Your task to perform on an android device: uninstall "Cash App" Image 0: 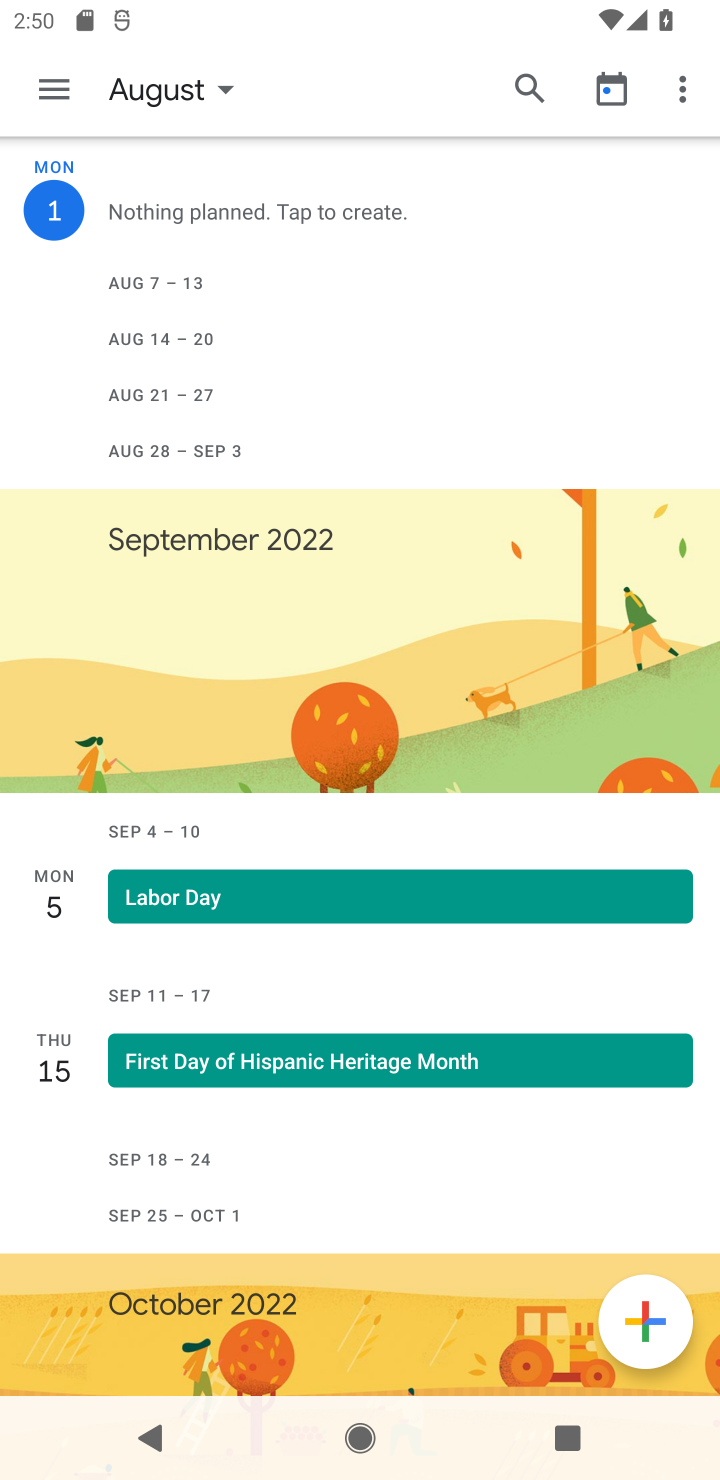
Step 0: press home button
Your task to perform on an android device: uninstall "Cash App" Image 1: 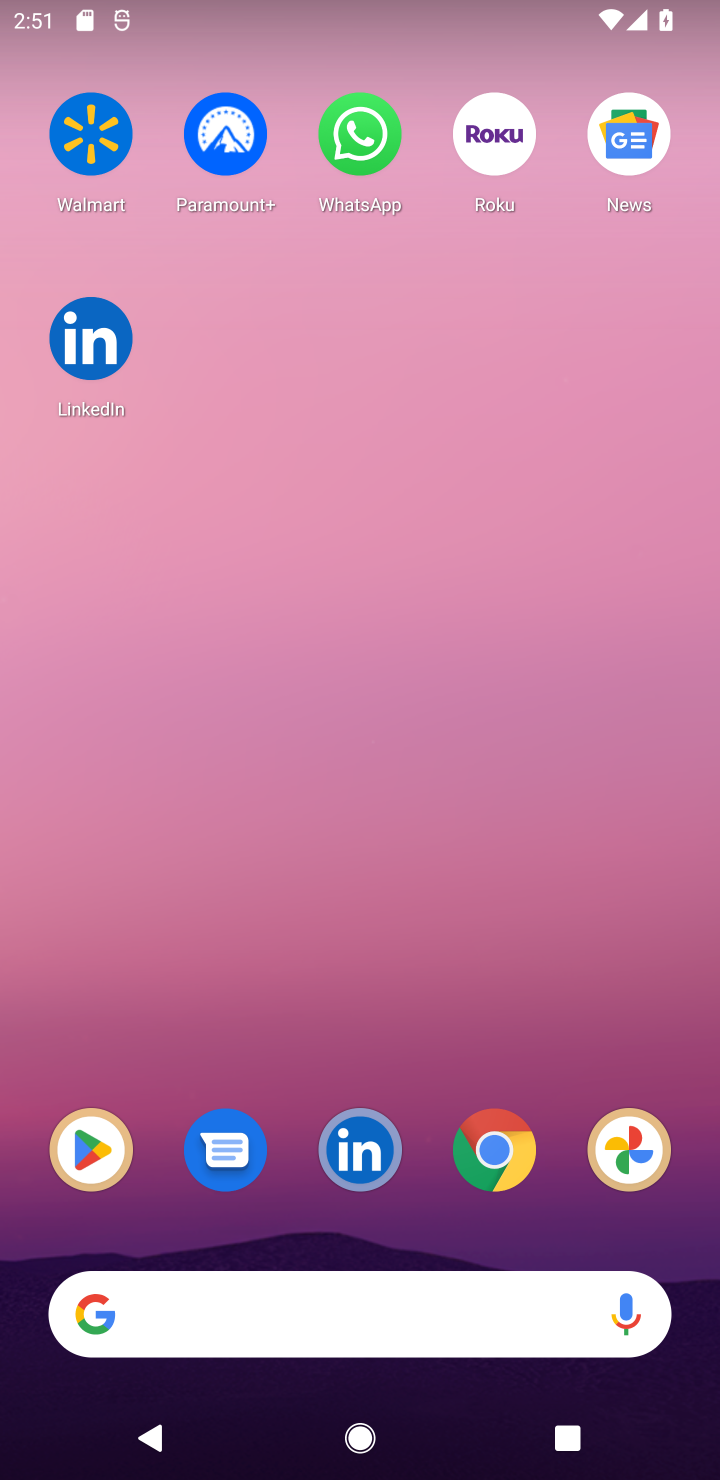
Step 1: task complete